Your task to perform on an android device: open device folders in google photos Image 0: 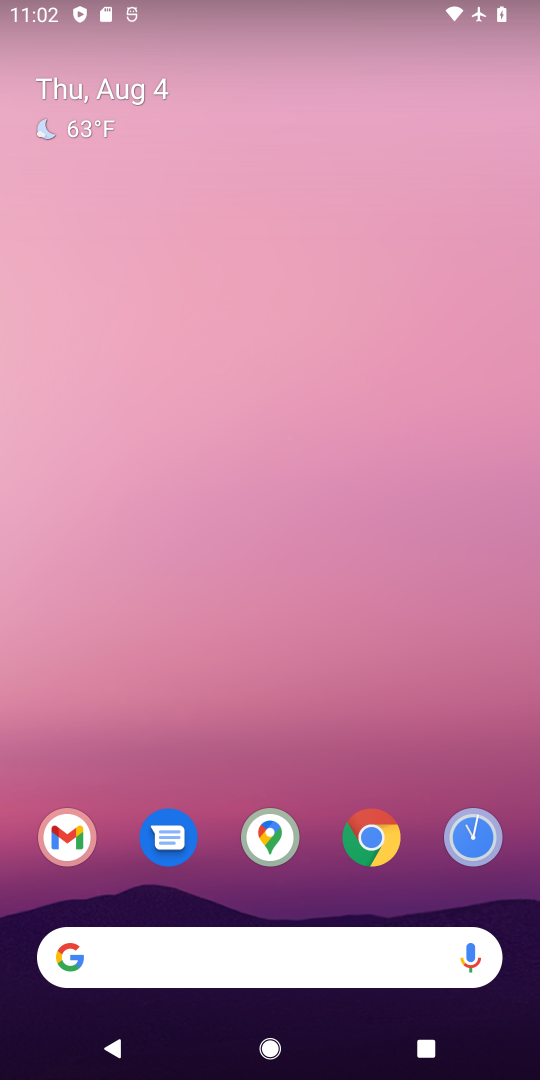
Step 0: press home button
Your task to perform on an android device: open device folders in google photos Image 1: 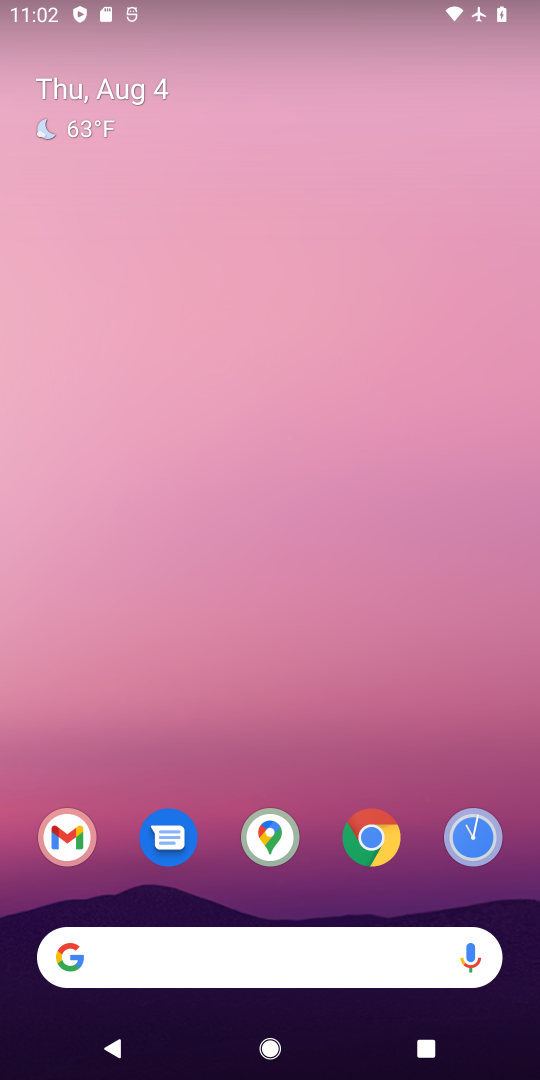
Step 1: drag from (314, 909) to (394, 61)
Your task to perform on an android device: open device folders in google photos Image 2: 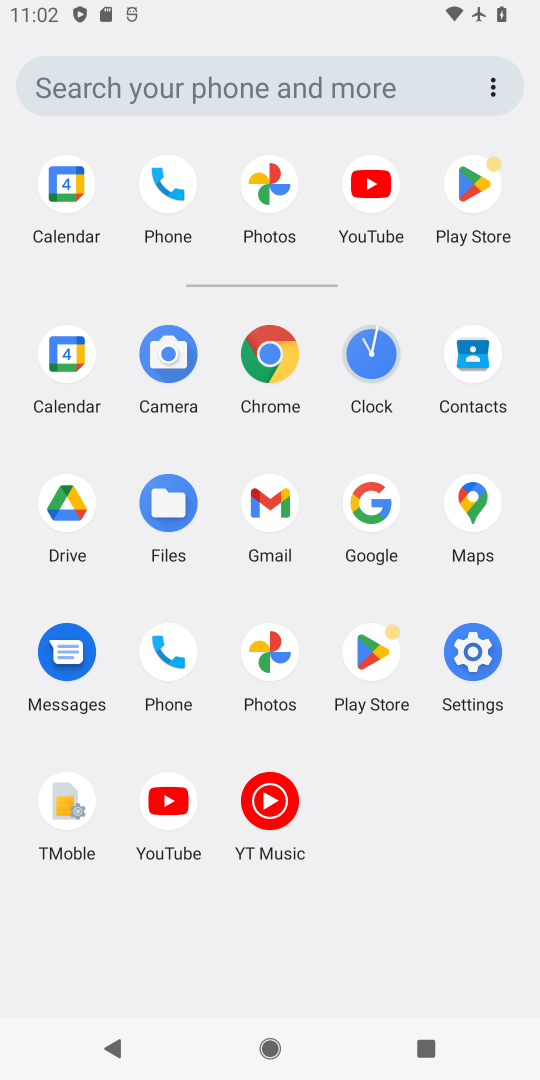
Step 2: click (271, 649)
Your task to perform on an android device: open device folders in google photos Image 3: 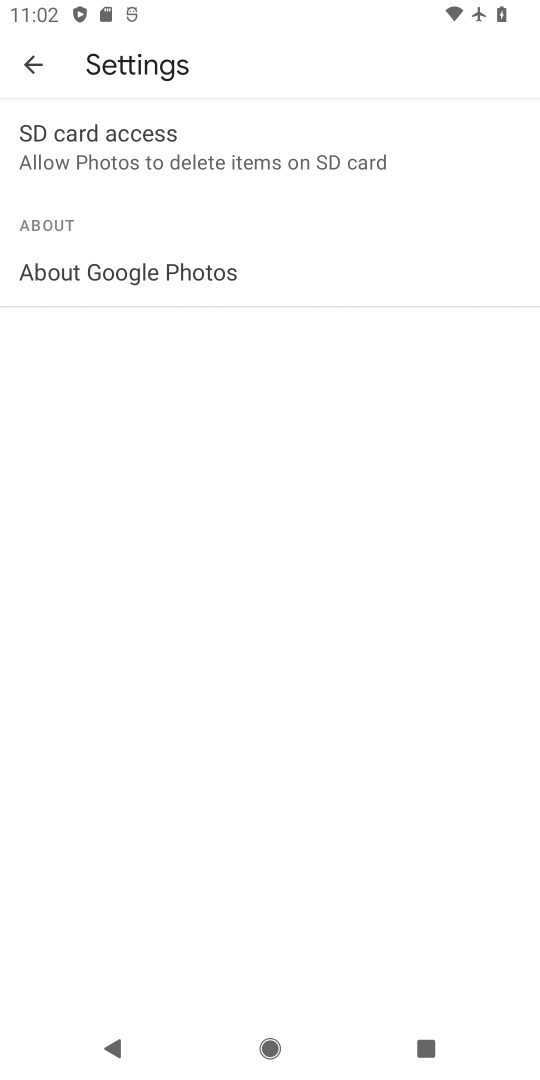
Step 3: click (36, 57)
Your task to perform on an android device: open device folders in google photos Image 4: 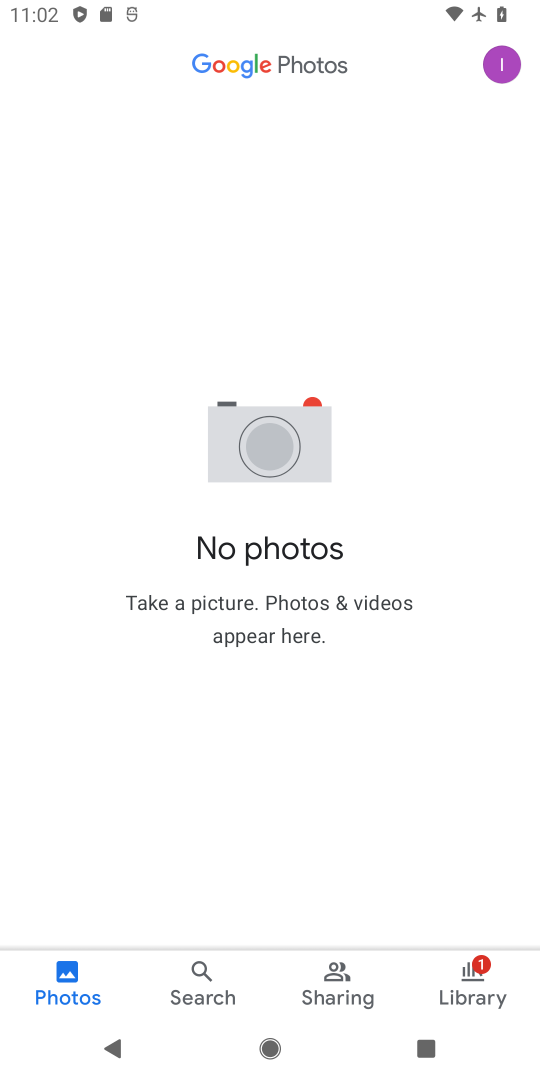
Step 4: click (192, 968)
Your task to perform on an android device: open device folders in google photos Image 5: 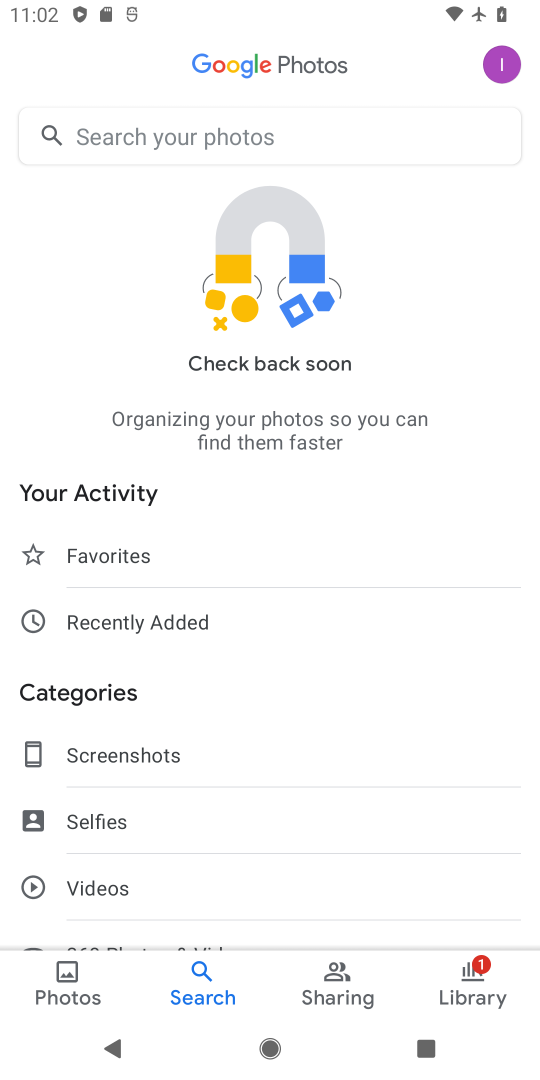
Step 5: click (142, 135)
Your task to perform on an android device: open device folders in google photos Image 6: 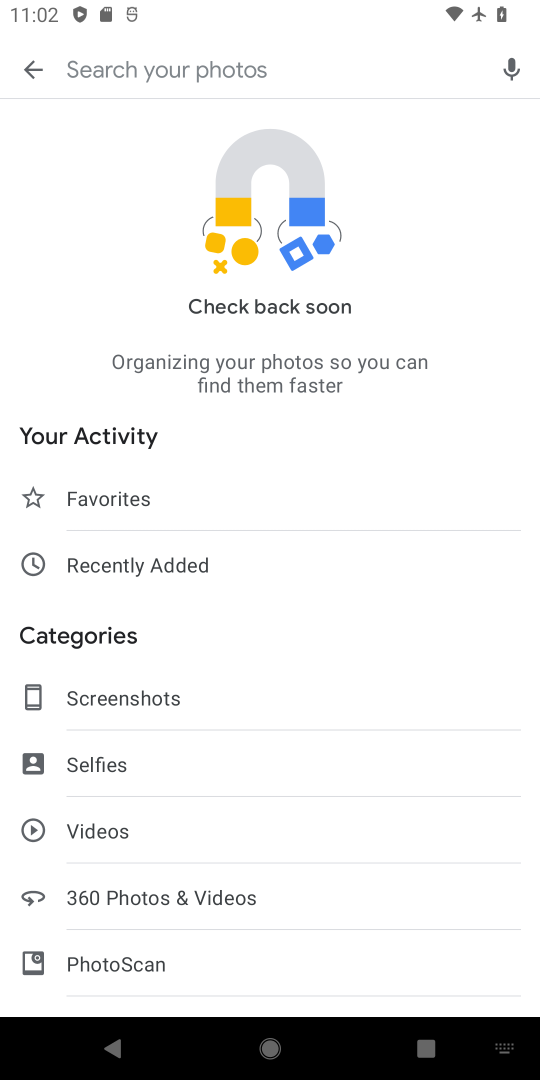
Step 6: type "device"
Your task to perform on an android device: open device folders in google photos Image 7: 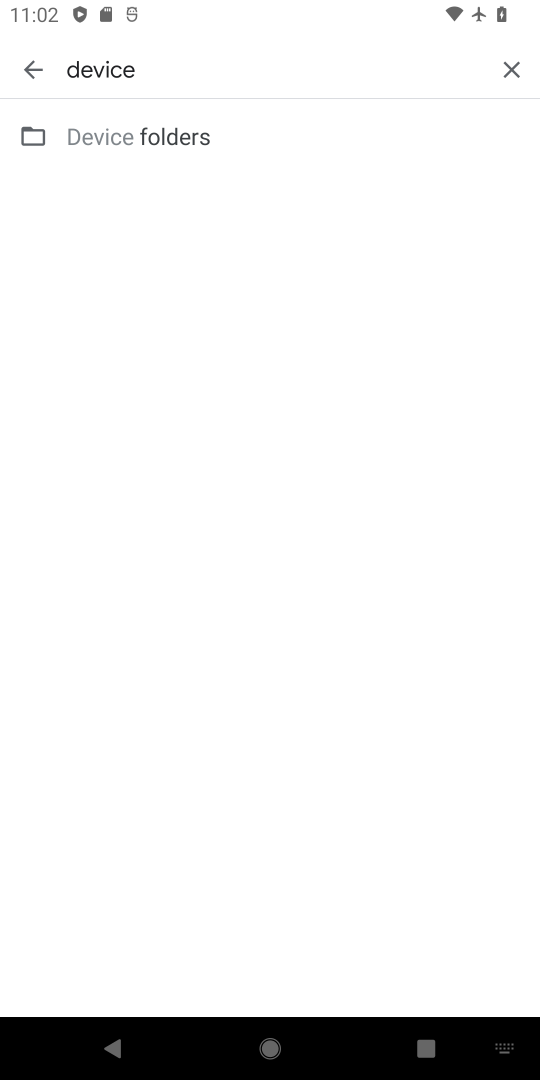
Step 7: click (101, 149)
Your task to perform on an android device: open device folders in google photos Image 8: 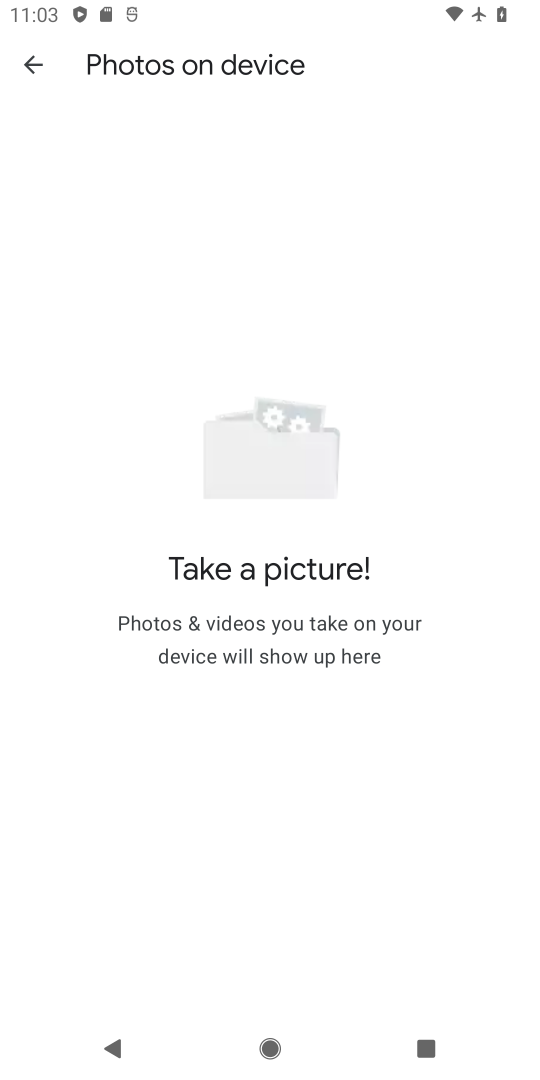
Step 8: task complete